Your task to perform on an android device: Go to network settings Image 0: 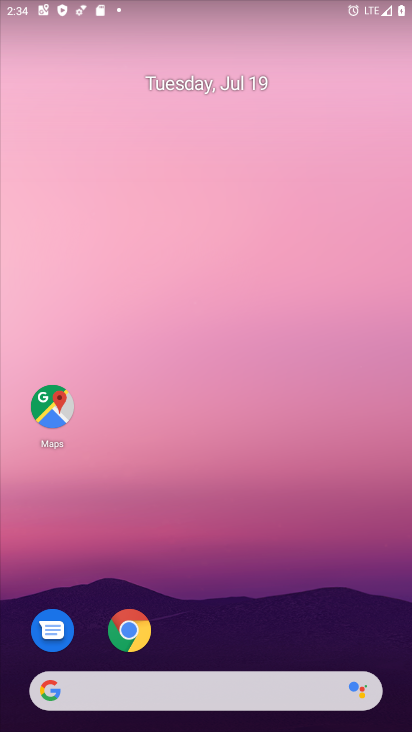
Step 0: press home button
Your task to perform on an android device: Go to network settings Image 1: 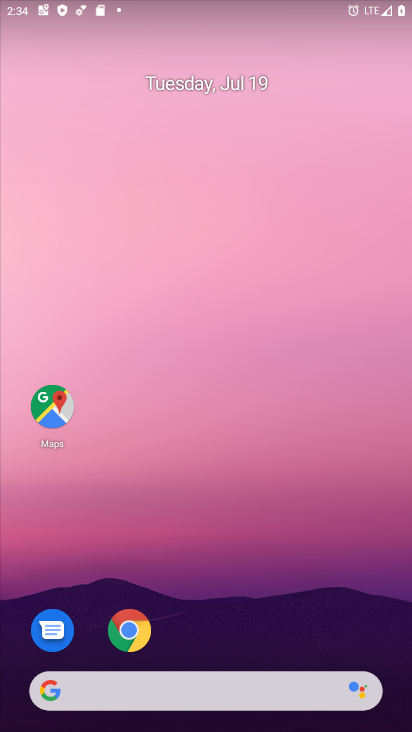
Step 1: drag from (227, 638) to (200, 109)
Your task to perform on an android device: Go to network settings Image 2: 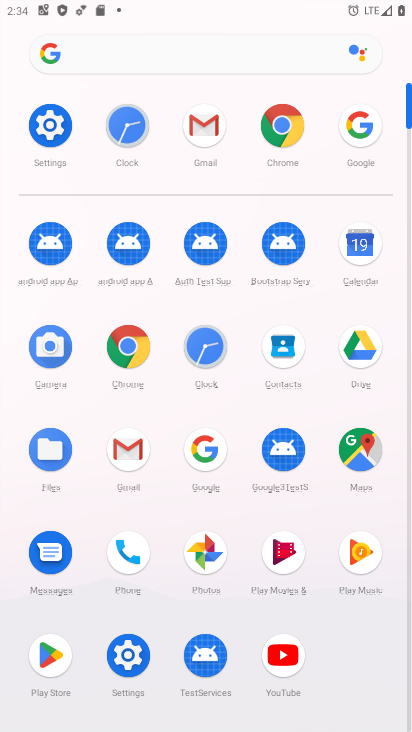
Step 2: click (49, 120)
Your task to perform on an android device: Go to network settings Image 3: 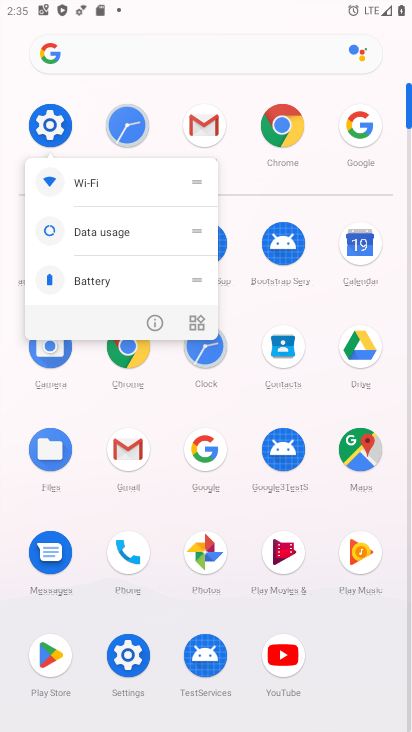
Step 3: click (46, 118)
Your task to perform on an android device: Go to network settings Image 4: 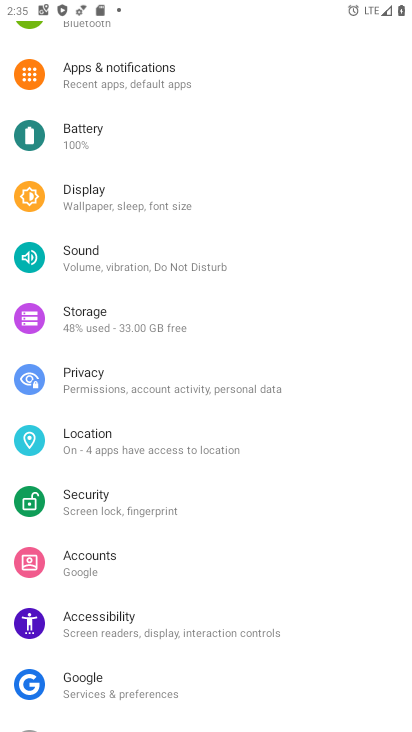
Step 4: drag from (115, 95) to (136, 666)
Your task to perform on an android device: Go to network settings Image 5: 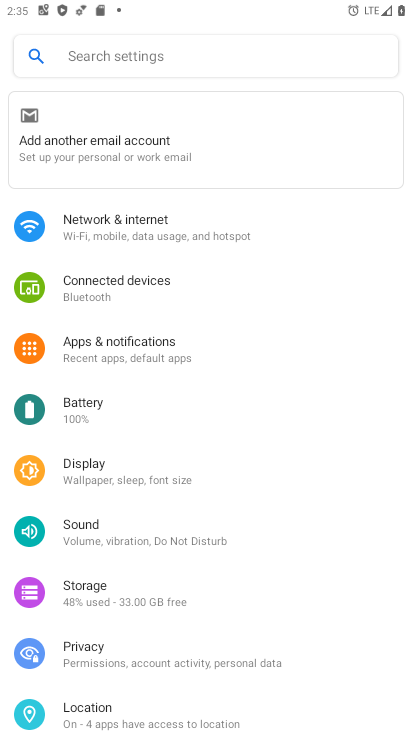
Step 5: click (131, 221)
Your task to perform on an android device: Go to network settings Image 6: 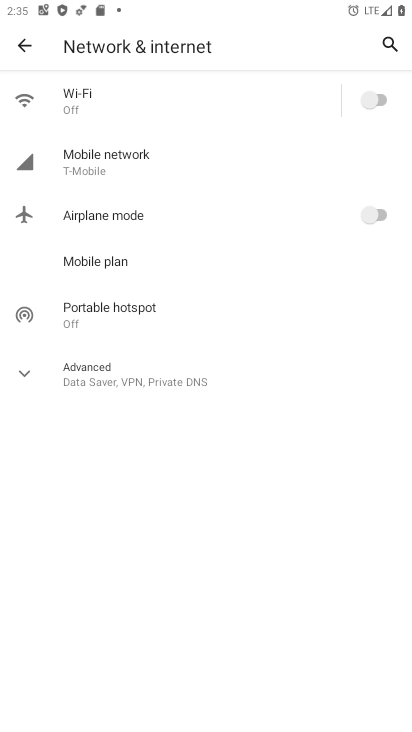
Step 6: click (22, 371)
Your task to perform on an android device: Go to network settings Image 7: 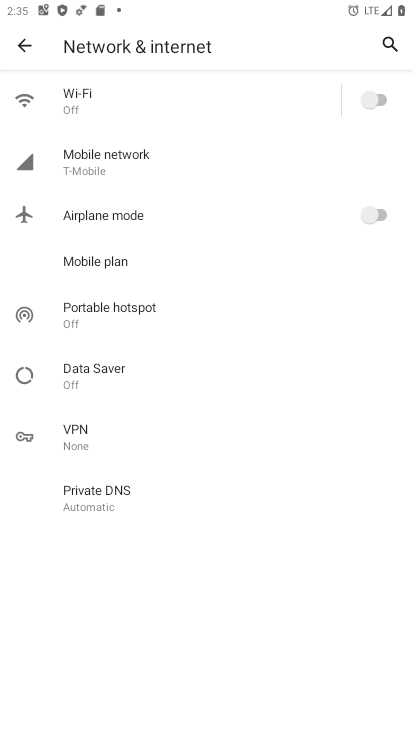
Step 7: task complete